Your task to perform on an android device: turn on data saver in the chrome app Image 0: 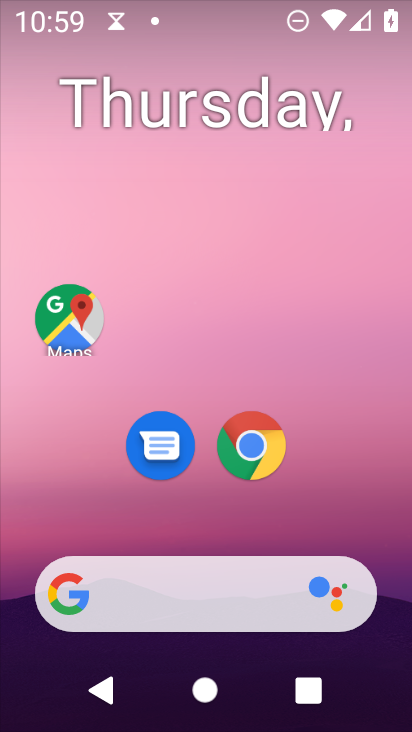
Step 0: click (237, 443)
Your task to perform on an android device: turn on data saver in the chrome app Image 1: 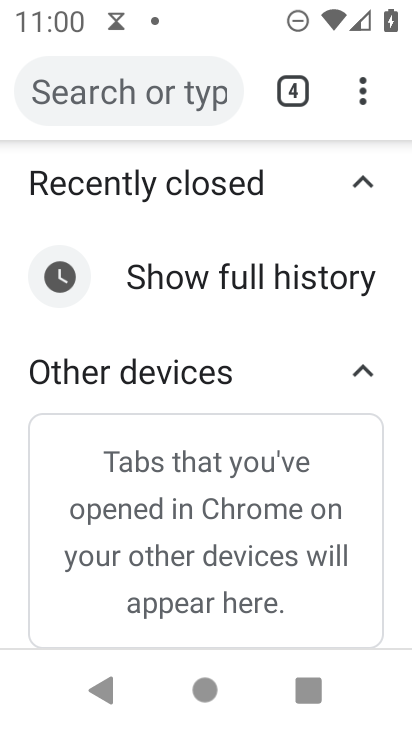
Step 1: click (361, 102)
Your task to perform on an android device: turn on data saver in the chrome app Image 2: 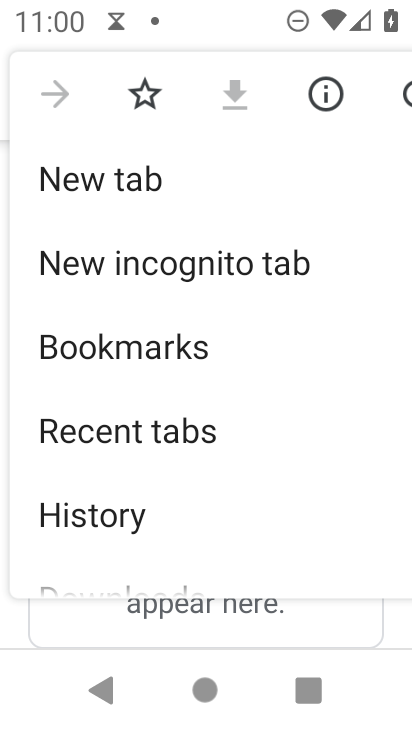
Step 2: drag from (150, 546) to (205, 106)
Your task to perform on an android device: turn on data saver in the chrome app Image 3: 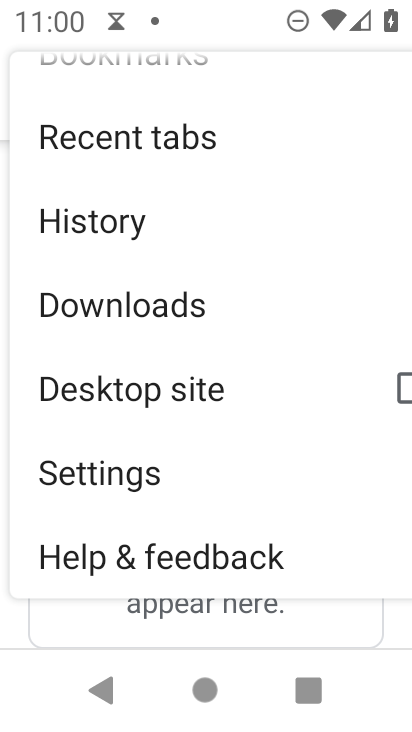
Step 3: click (105, 481)
Your task to perform on an android device: turn on data saver in the chrome app Image 4: 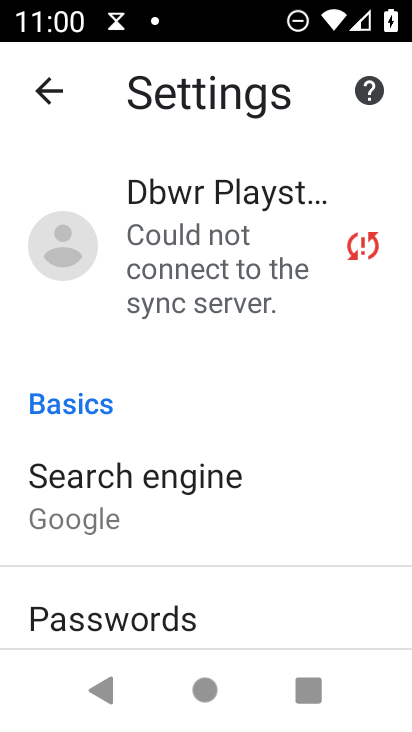
Step 4: drag from (203, 605) to (225, 286)
Your task to perform on an android device: turn on data saver in the chrome app Image 5: 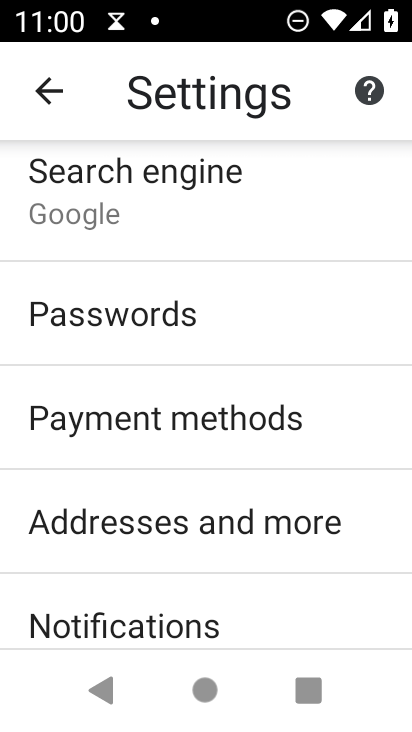
Step 5: drag from (163, 632) to (159, 274)
Your task to perform on an android device: turn on data saver in the chrome app Image 6: 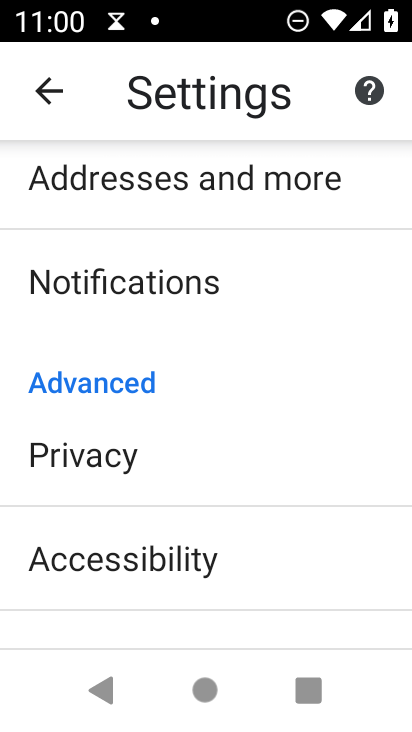
Step 6: drag from (165, 601) to (142, 316)
Your task to perform on an android device: turn on data saver in the chrome app Image 7: 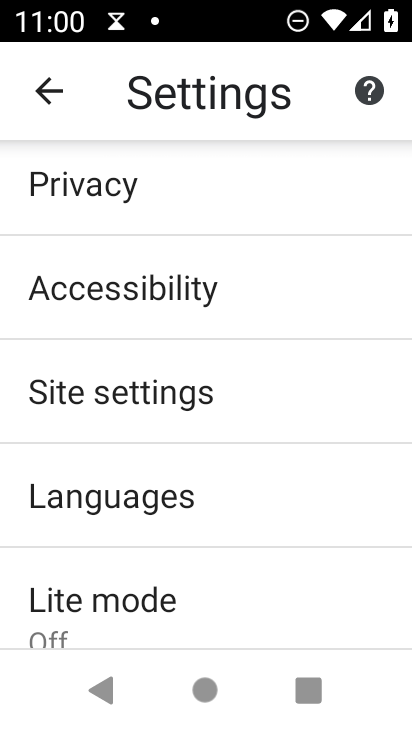
Step 7: click (138, 603)
Your task to perform on an android device: turn on data saver in the chrome app Image 8: 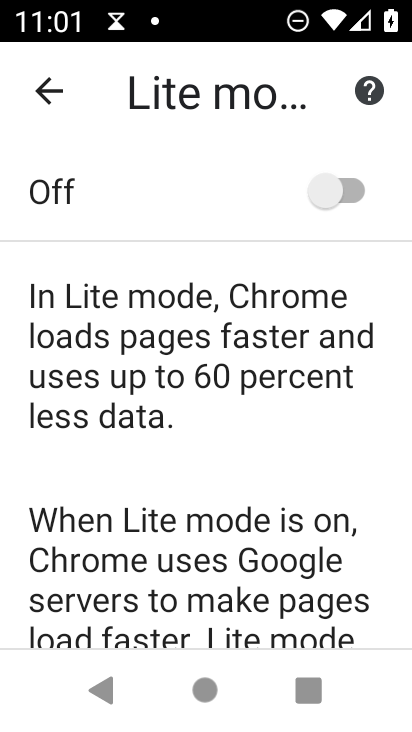
Step 8: click (356, 183)
Your task to perform on an android device: turn on data saver in the chrome app Image 9: 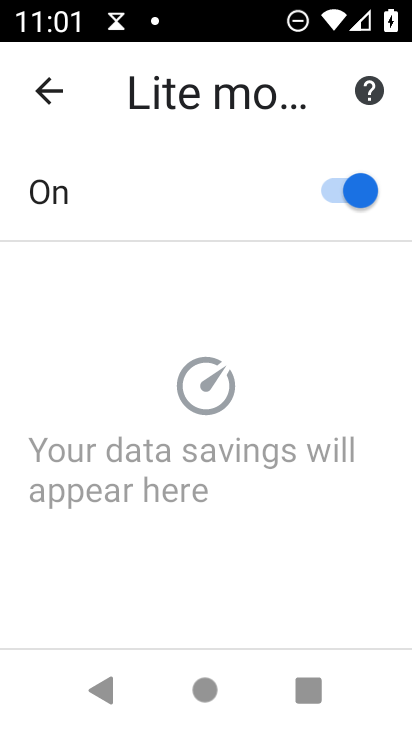
Step 9: task complete